Your task to perform on an android device: change timer sound Image 0: 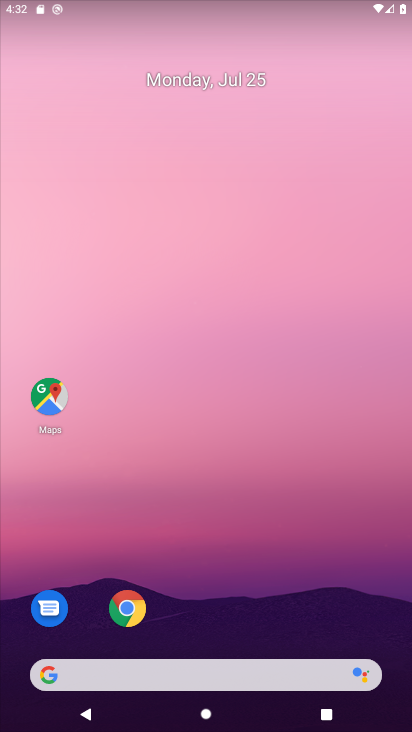
Step 0: drag from (219, 645) to (143, 2)
Your task to perform on an android device: change timer sound Image 1: 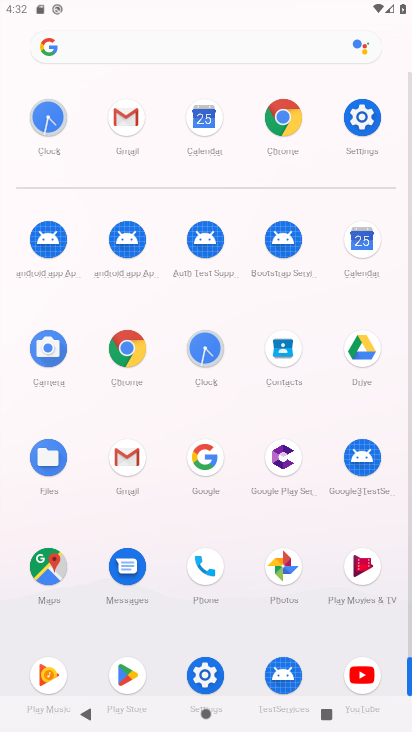
Step 1: click (213, 351)
Your task to perform on an android device: change timer sound Image 2: 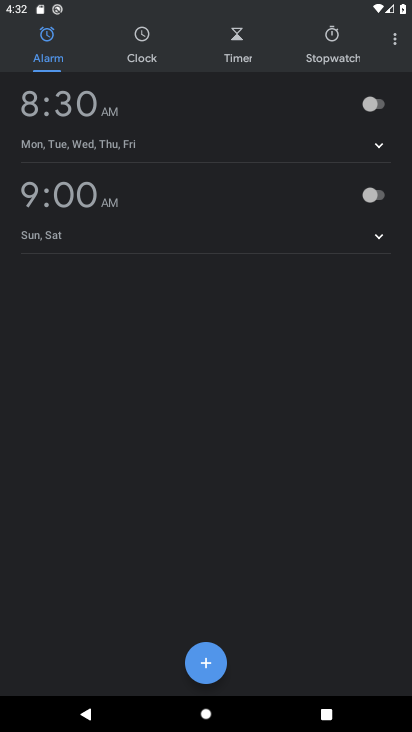
Step 2: click (392, 35)
Your task to perform on an android device: change timer sound Image 3: 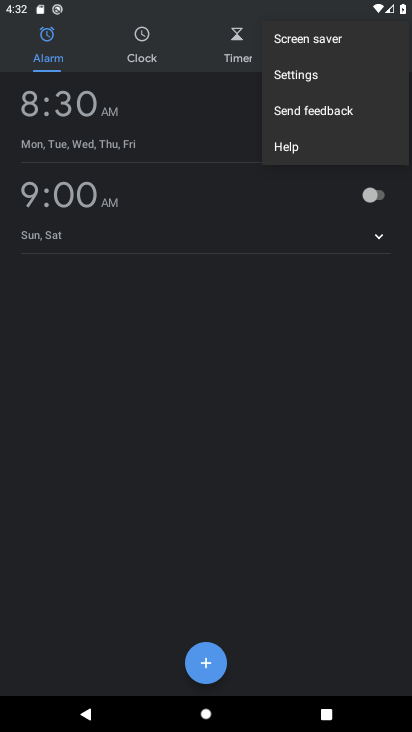
Step 3: click (295, 83)
Your task to perform on an android device: change timer sound Image 4: 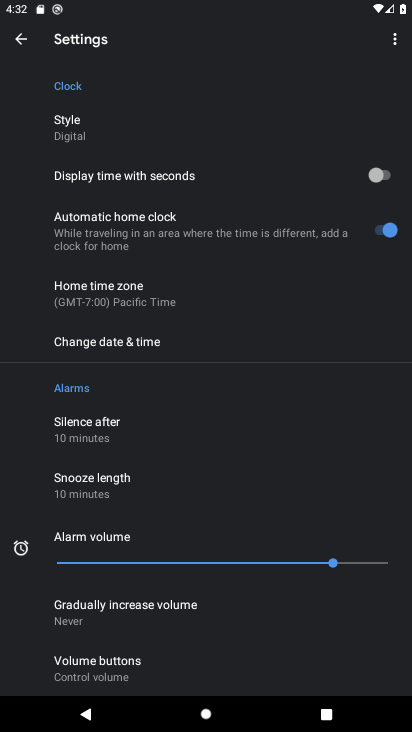
Step 4: drag from (146, 545) to (137, 363)
Your task to perform on an android device: change timer sound Image 5: 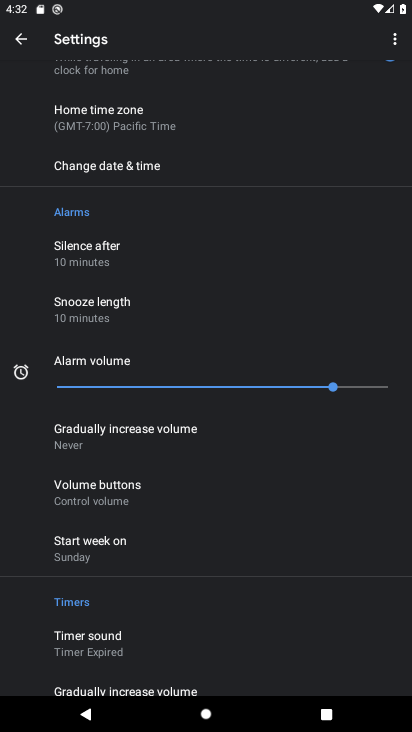
Step 5: click (107, 648)
Your task to perform on an android device: change timer sound Image 6: 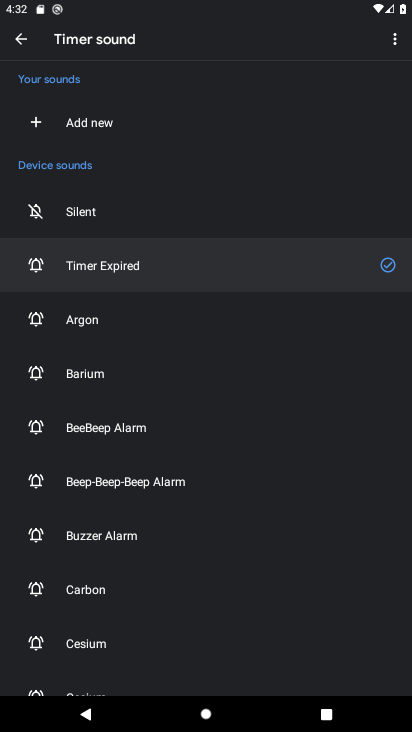
Step 6: click (92, 385)
Your task to perform on an android device: change timer sound Image 7: 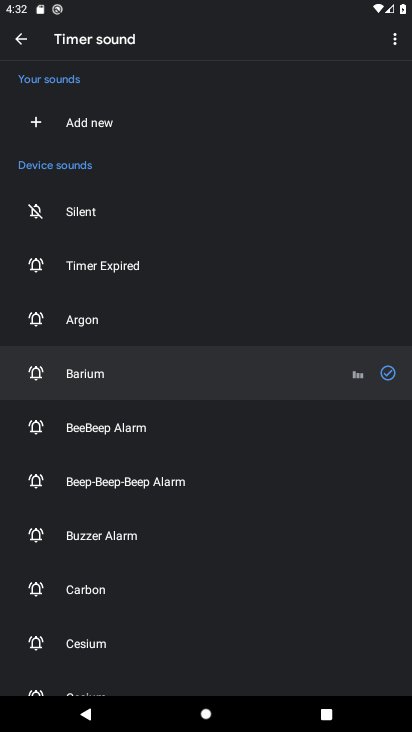
Step 7: task complete